Your task to perform on an android device: toggle javascript in the chrome app Image 0: 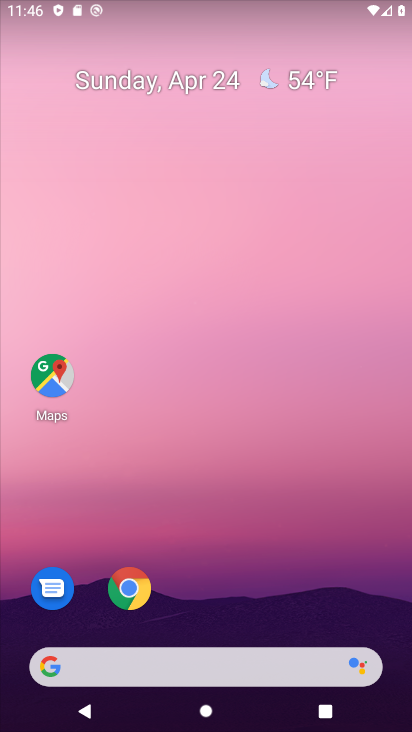
Step 0: drag from (224, 629) to (225, 1)
Your task to perform on an android device: toggle javascript in the chrome app Image 1: 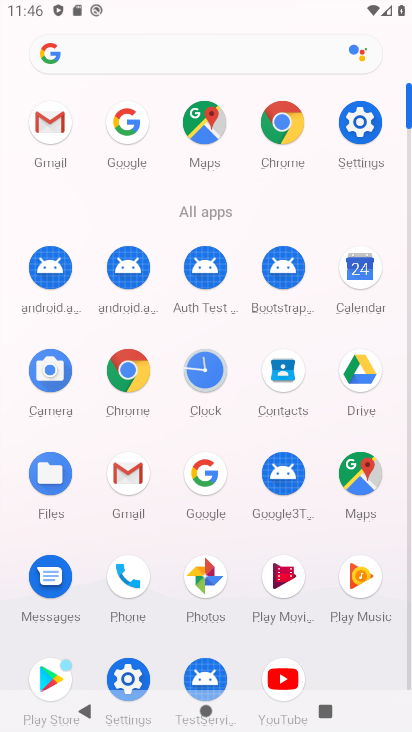
Step 1: click (123, 372)
Your task to perform on an android device: toggle javascript in the chrome app Image 2: 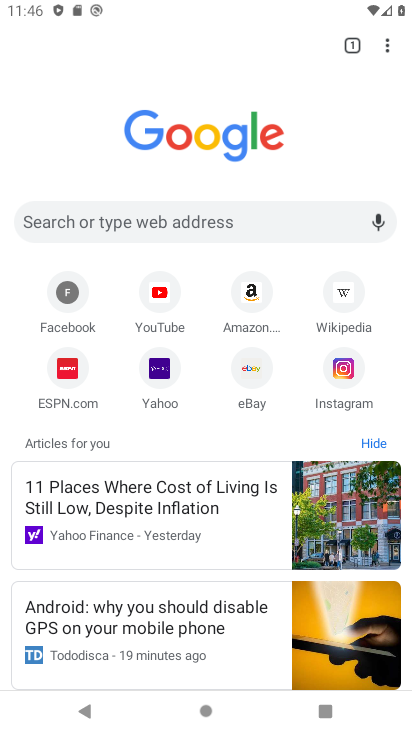
Step 2: drag from (387, 41) to (242, 376)
Your task to perform on an android device: toggle javascript in the chrome app Image 3: 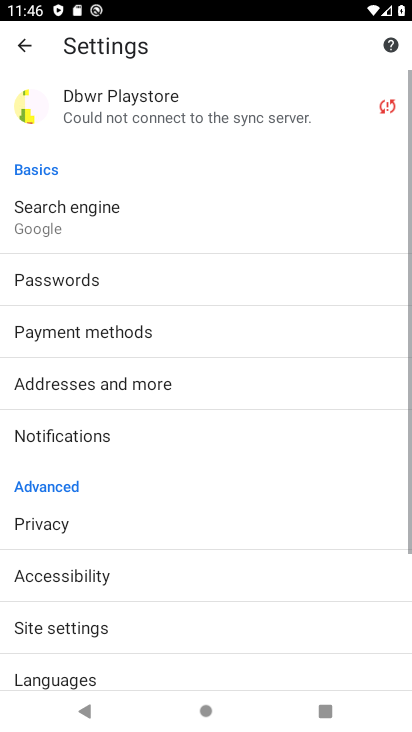
Step 3: drag from (174, 554) to (168, 44)
Your task to perform on an android device: toggle javascript in the chrome app Image 4: 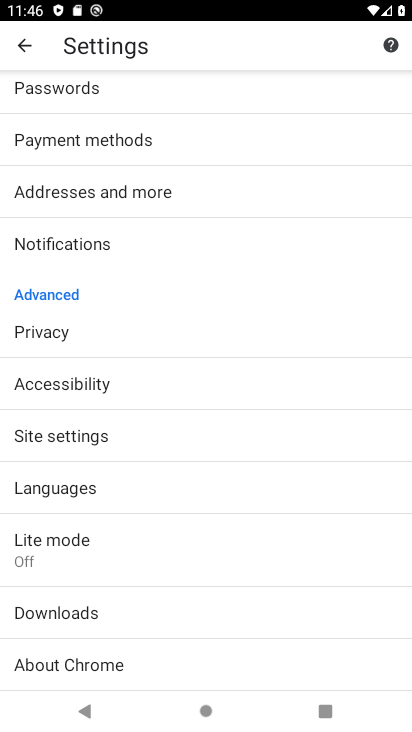
Step 4: click (72, 446)
Your task to perform on an android device: toggle javascript in the chrome app Image 5: 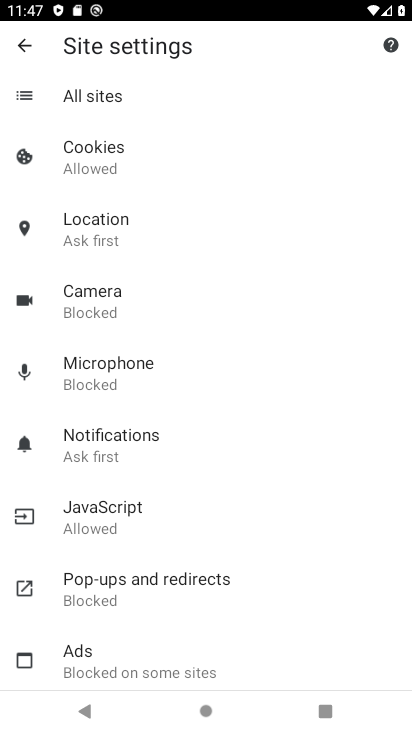
Step 5: click (85, 504)
Your task to perform on an android device: toggle javascript in the chrome app Image 6: 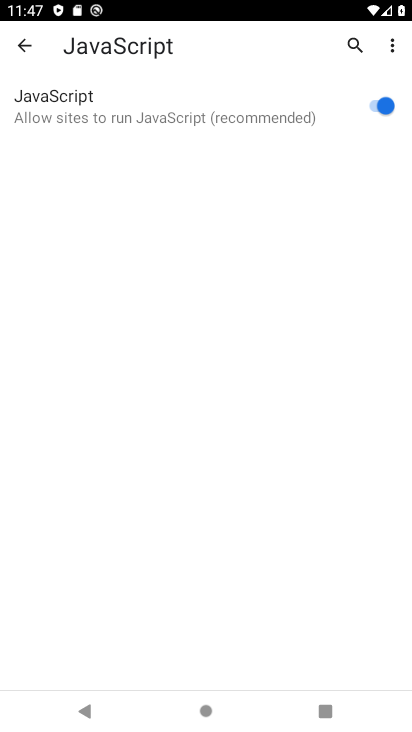
Step 6: click (386, 99)
Your task to perform on an android device: toggle javascript in the chrome app Image 7: 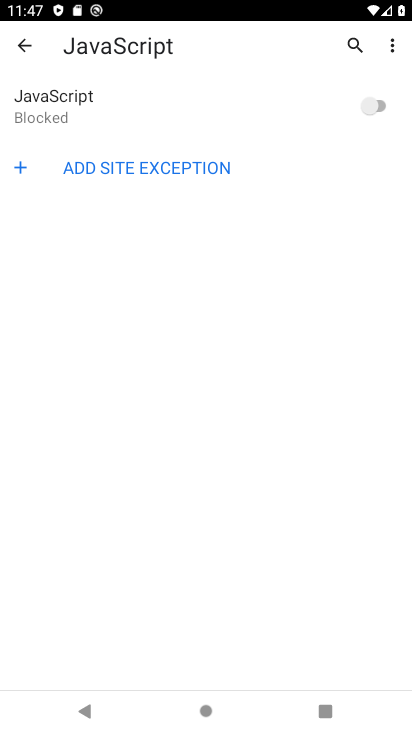
Step 7: task complete